Your task to perform on an android device: Open accessibility settings Image 0: 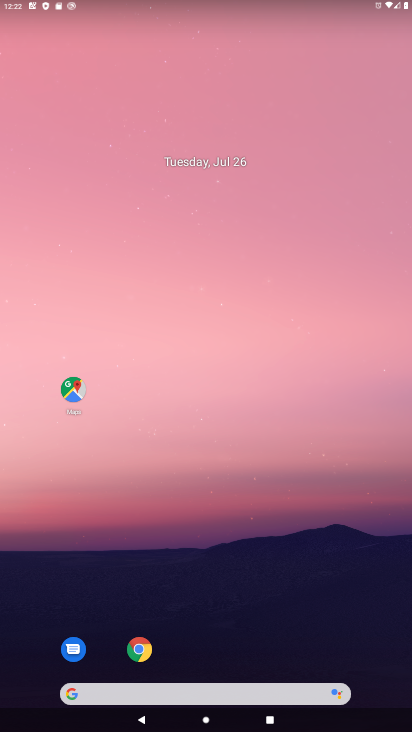
Step 0: drag from (185, 727) to (163, 102)
Your task to perform on an android device: Open accessibility settings Image 1: 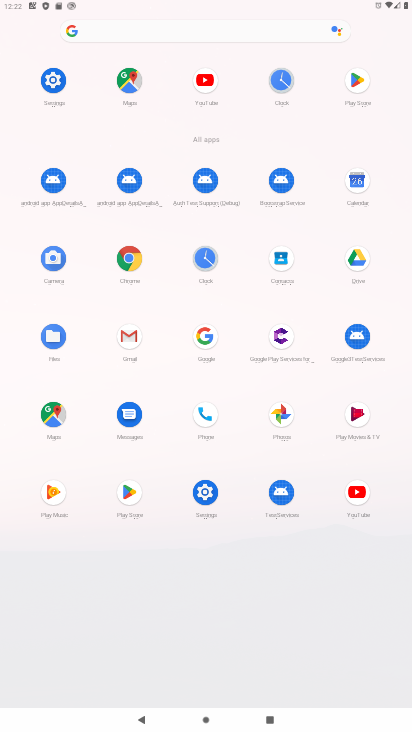
Step 1: click (54, 80)
Your task to perform on an android device: Open accessibility settings Image 2: 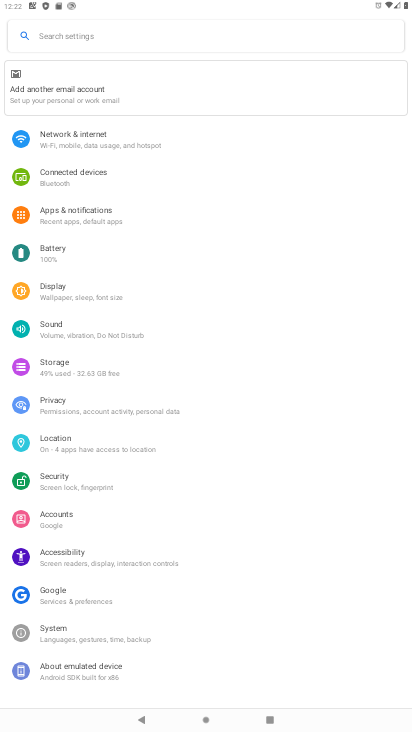
Step 2: click (64, 554)
Your task to perform on an android device: Open accessibility settings Image 3: 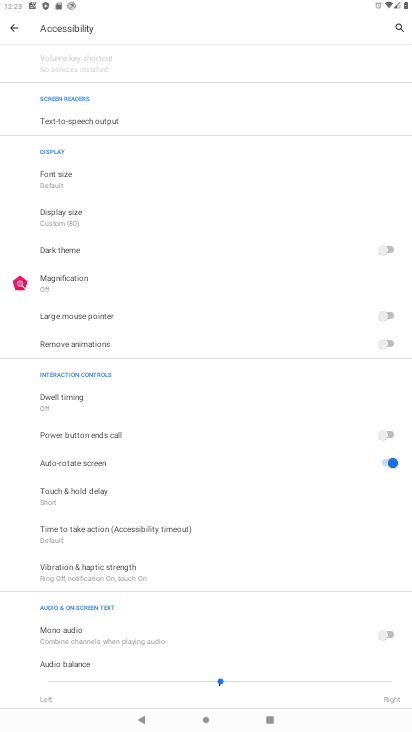
Step 3: task complete